Your task to perform on an android device: Show the shopping cart on costco.com. Add apple airpods pro to the cart on costco.com Image 0: 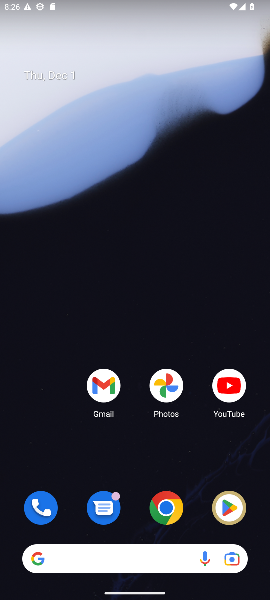
Step 0: click (166, 515)
Your task to perform on an android device: Show the shopping cart on costco.com. Add apple airpods pro to the cart on costco.com Image 1: 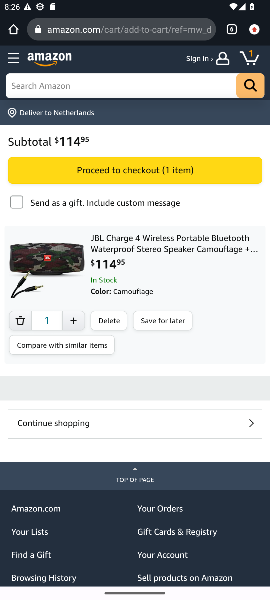
Step 1: click (233, 25)
Your task to perform on an android device: Show the shopping cart on costco.com. Add apple airpods pro to the cart on costco.com Image 2: 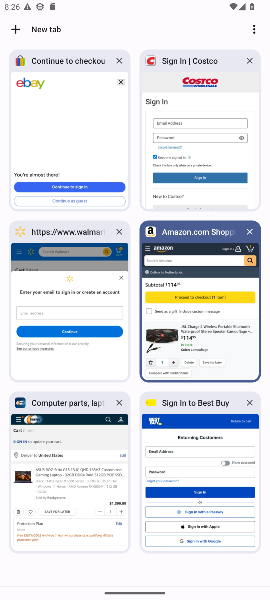
Step 2: click (170, 138)
Your task to perform on an android device: Show the shopping cart on costco.com. Add apple airpods pro to the cart on costco.com Image 3: 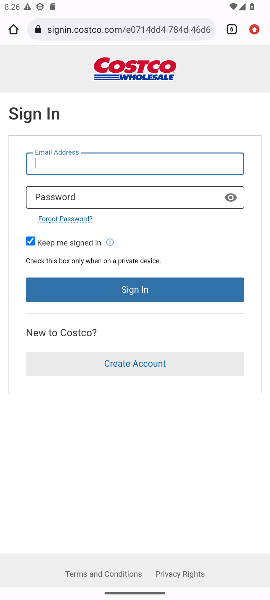
Step 3: press back button
Your task to perform on an android device: Show the shopping cart on costco.com. Add apple airpods pro to the cart on costco.com Image 4: 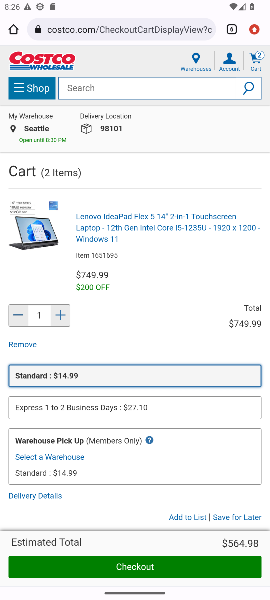
Step 4: drag from (121, 356) to (123, 126)
Your task to perform on an android device: Show the shopping cart on costco.com. Add apple airpods pro to the cart on costco.com Image 5: 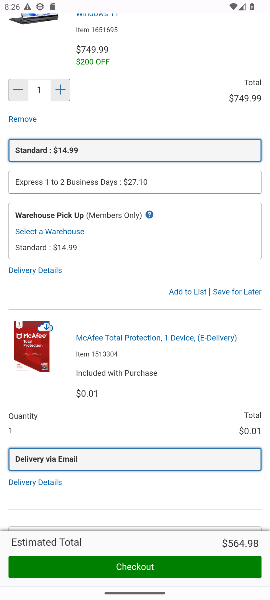
Step 5: drag from (91, 422) to (76, 93)
Your task to perform on an android device: Show the shopping cart on costco.com. Add apple airpods pro to the cart on costco.com Image 6: 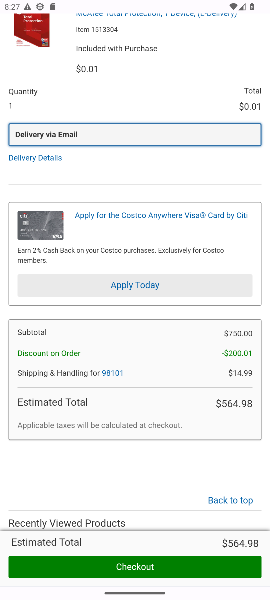
Step 6: drag from (188, 114) to (180, 493)
Your task to perform on an android device: Show the shopping cart on costco.com. Add apple airpods pro to the cart on costco.com Image 7: 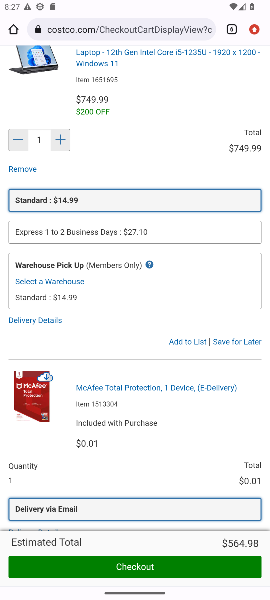
Step 7: drag from (164, 144) to (128, 406)
Your task to perform on an android device: Show the shopping cart on costco.com. Add apple airpods pro to the cart on costco.com Image 8: 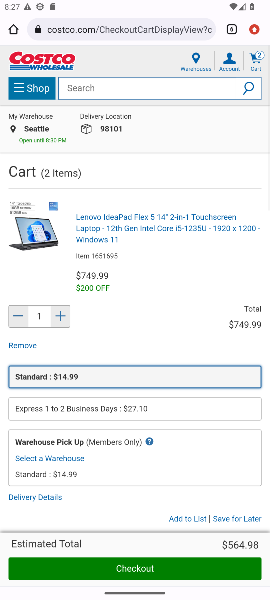
Step 8: click (128, 88)
Your task to perform on an android device: Show the shopping cart on costco.com. Add apple airpods pro to the cart on costco.com Image 9: 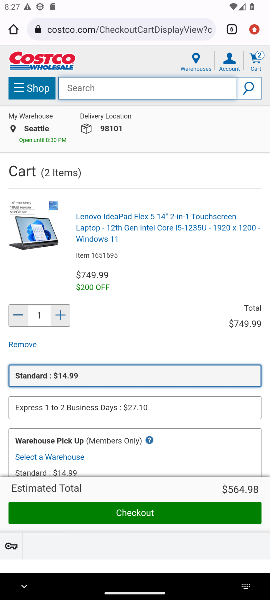
Step 9: type " apple airpods pro"
Your task to perform on an android device: Show the shopping cart on costco.com. Add apple airpods pro to the cart on costco.com Image 10: 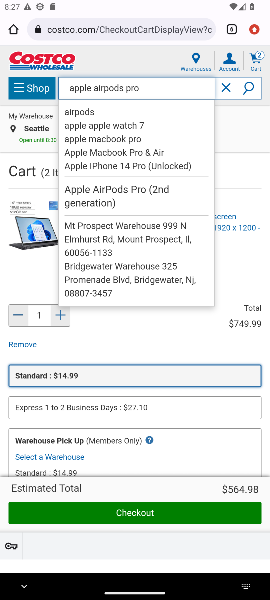
Step 10: click (250, 92)
Your task to perform on an android device: Show the shopping cart on costco.com. Add apple airpods pro to the cart on costco.com Image 11: 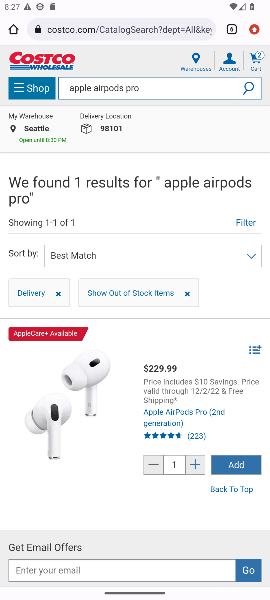
Step 11: click (240, 461)
Your task to perform on an android device: Show the shopping cart on costco.com. Add apple airpods pro to the cart on costco.com Image 12: 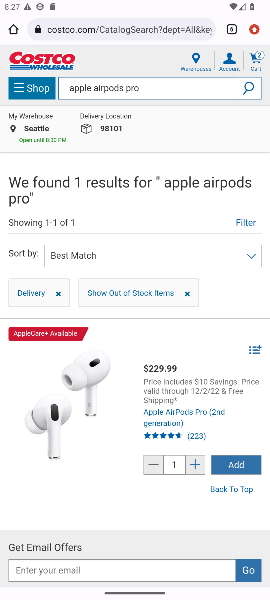
Step 12: click (255, 65)
Your task to perform on an android device: Show the shopping cart on costco.com. Add apple airpods pro to the cart on costco.com Image 13: 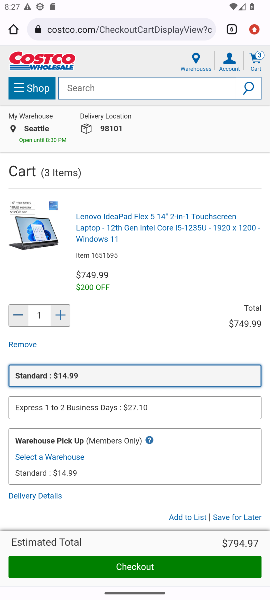
Step 13: task complete